Your task to perform on an android device: find photos in the google photos app Image 0: 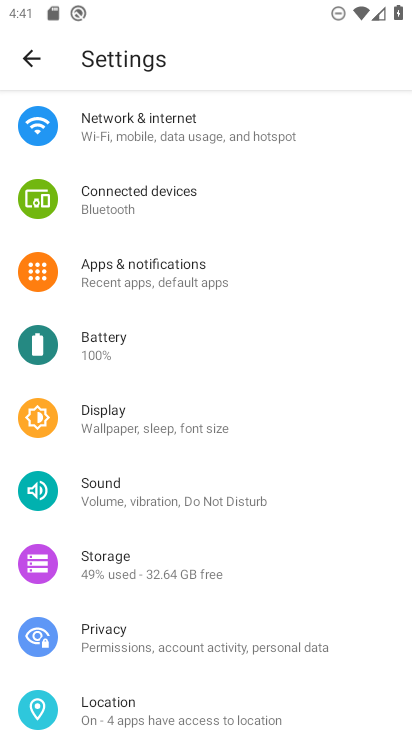
Step 0: press back button
Your task to perform on an android device: find photos in the google photos app Image 1: 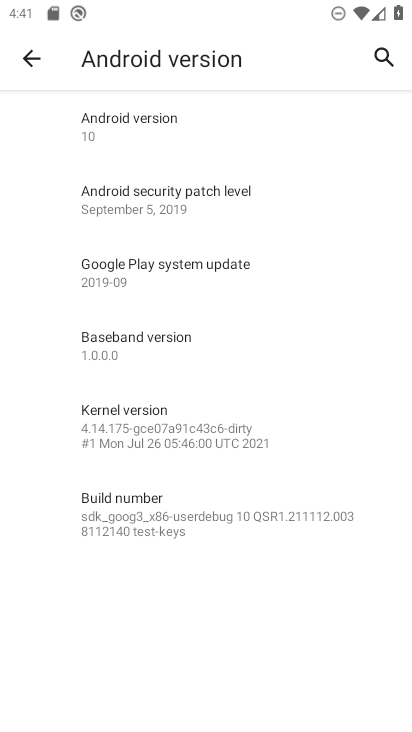
Step 1: click (31, 52)
Your task to perform on an android device: find photos in the google photos app Image 2: 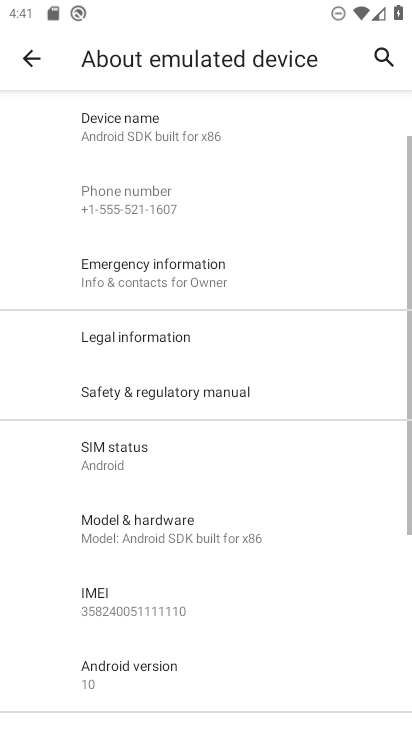
Step 2: click (23, 58)
Your task to perform on an android device: find photos in the google photos app Image 3: 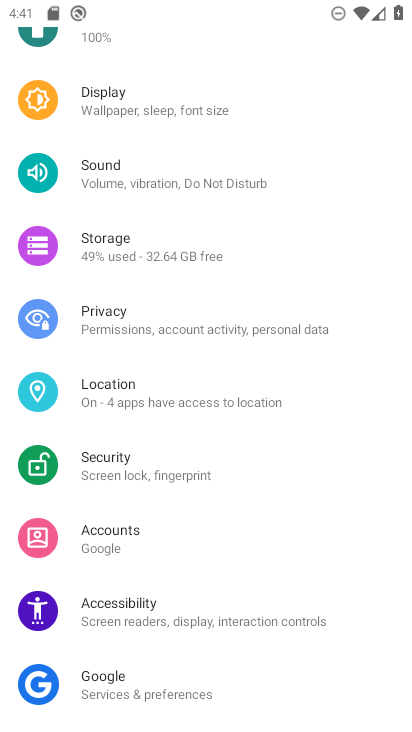
Step 3: press home button
Your task to perform on an android device: find photos in the google photos app Image 4: 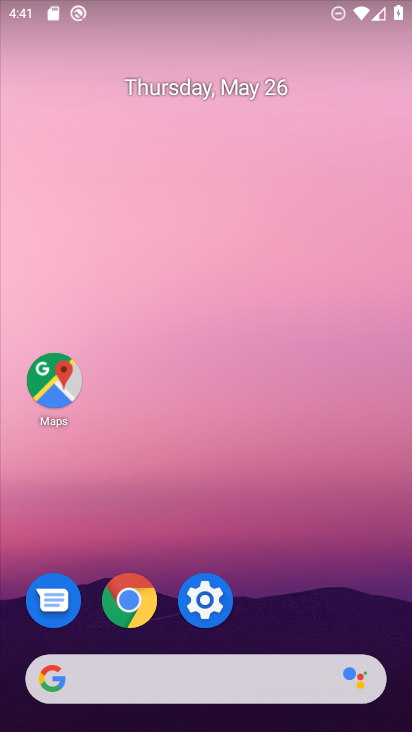
Step 4: drag from (285, 686) to (174, 170)
Your task to perform on an android device: find photos in the google photos app Image 5: 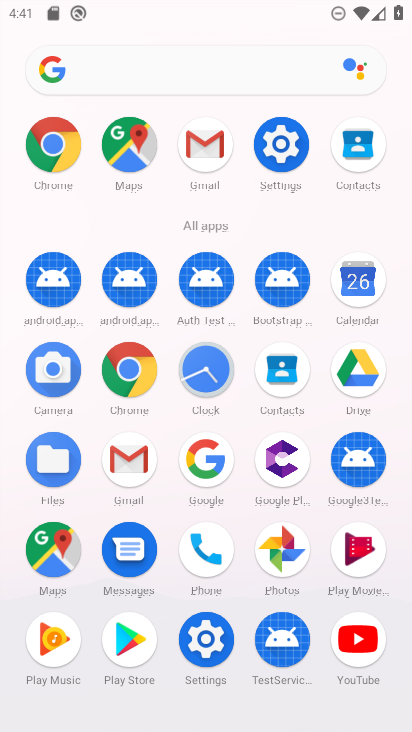
Step 5: click (274, 558)
Your task to perform on an android device: find photos in the google photos app Image 6: 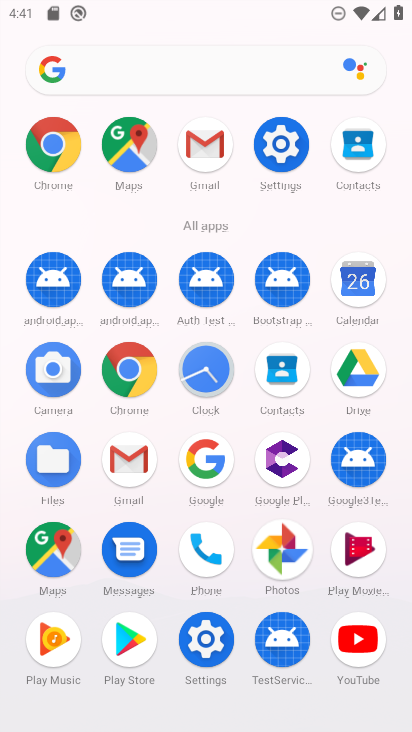
Step 6: click (277, 557)
Your task to perform on an android device: find photos in the google photos app Image 7: 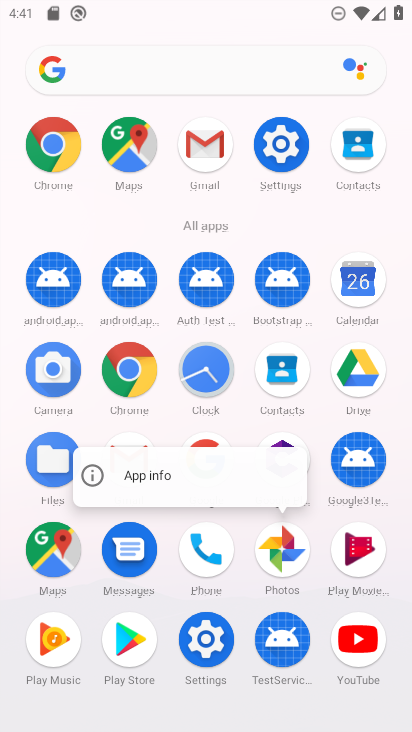
Step 7: click (277, 557)
Your task to perform on an android device: find photos in the google photos app Image 8: 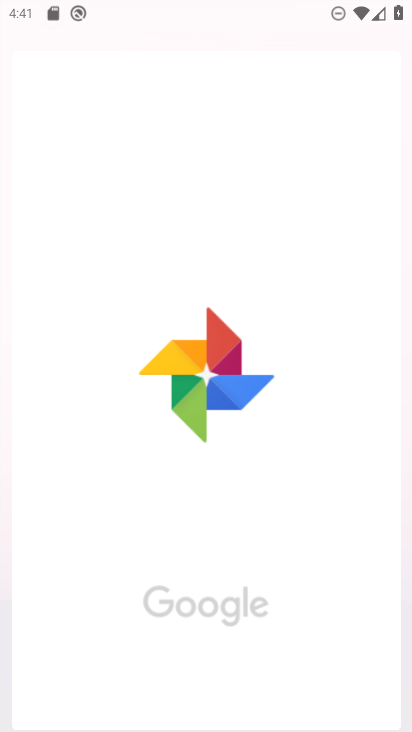
Step 8: click (278, 557)
Your task to perform on an android device: find photos in the google photos app Image 9: 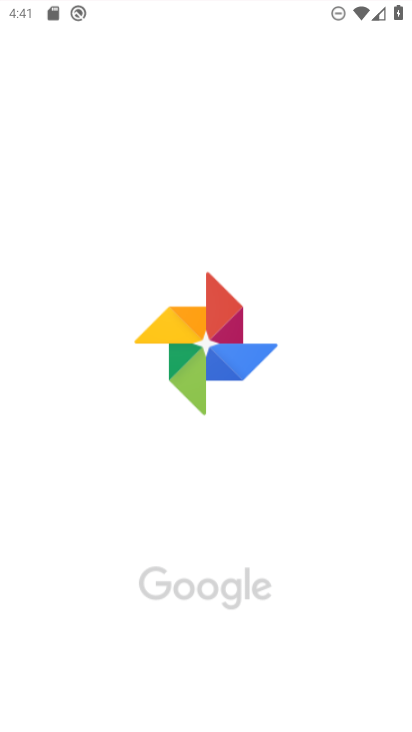
Step 9: click (278, 557)
Your task to perform on an android device: find photos in the google photos app Image 10: 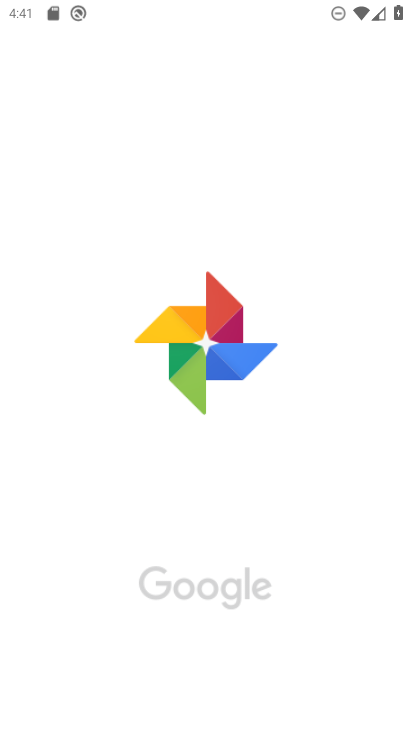
Step 10: click (278, 557)
Your task to perform on an android device: find photos in the google photos app Image 11: 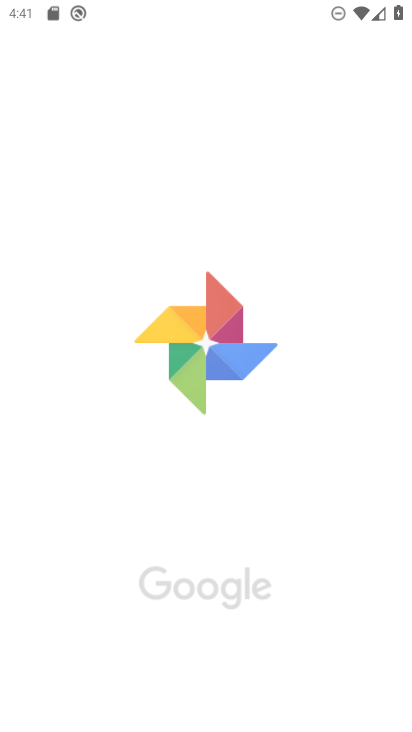
Step 11: click (269, 558)
Your task to perform on an android device: find photos in the google photos app Image 12: 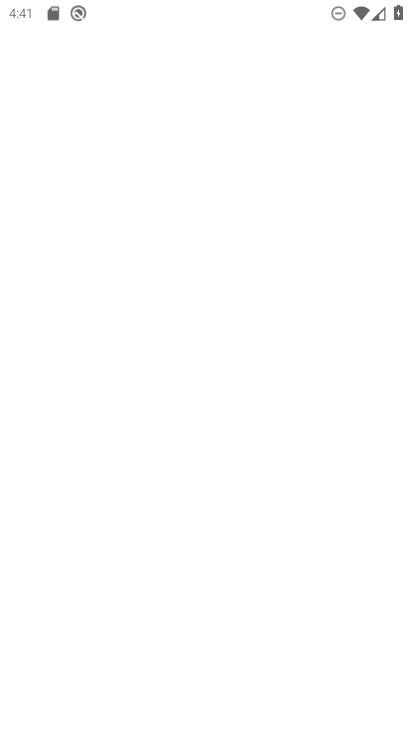
Step 12: click (269, 558)
Your task to perform on an android device: find photos in the google photos app Image 13: 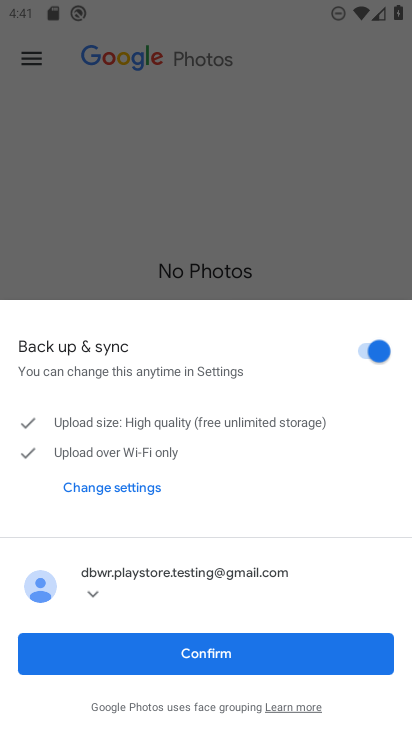
Step 13: click (217, 660)
Your task to perform on an android device: find photos in the google photos app Image 14: 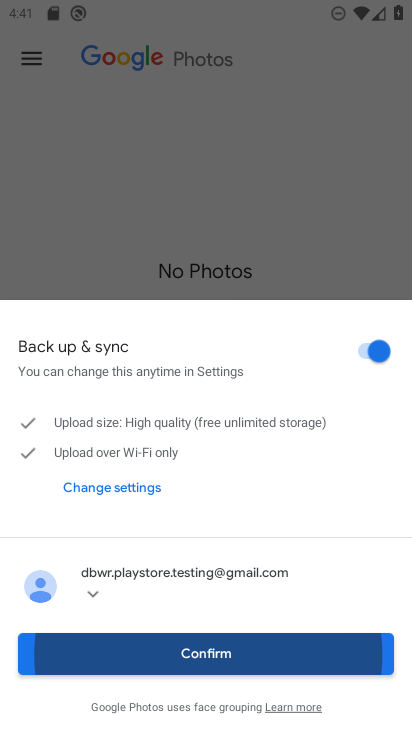
Step 14: click (217, 660)
Your task to perform on an android device: find photos in the google photos app Image 15: 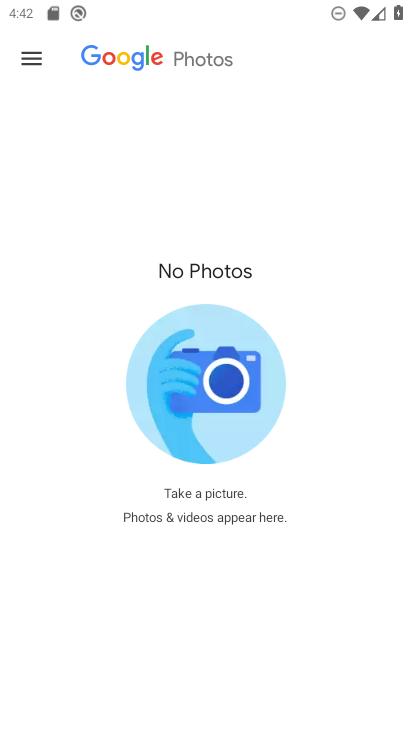
Step 15: click (217, 660)
Your task to perform on an android device: find photos in the google photos app Image 16: 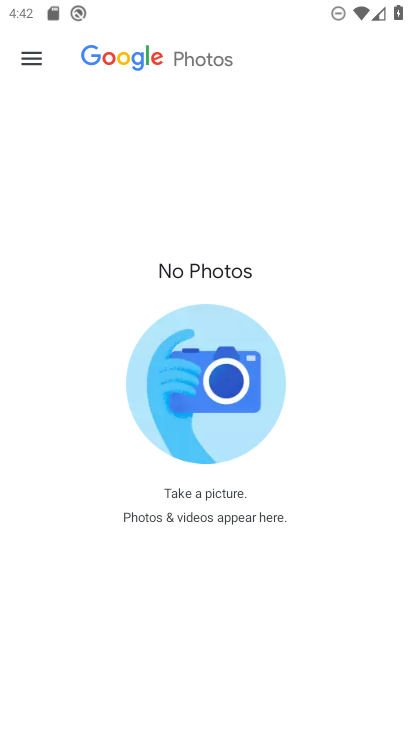
Step 16: click (217, 660)
Your task to perform on an android device: find photos in the google photos app Image 17: 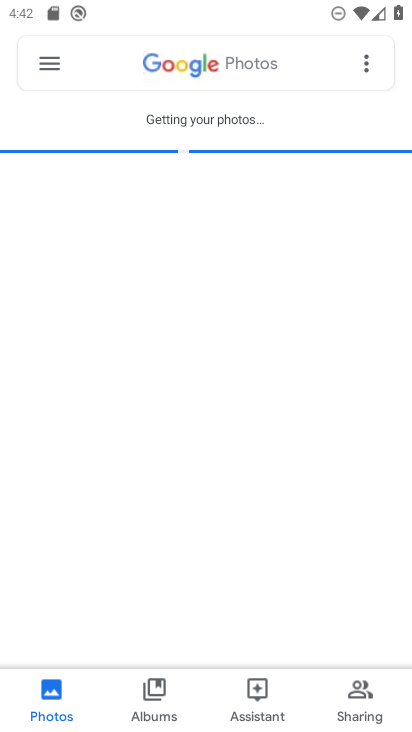
Step 17: click (220, 658)
Your task to perform on an android device: find photos in the google photos app Image 18: 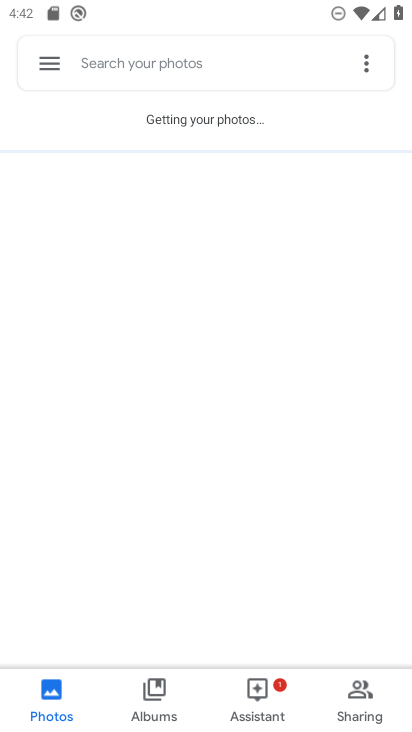
Step 18: task complete